Your task to perform on an android device: Open wifi settings Image 0: 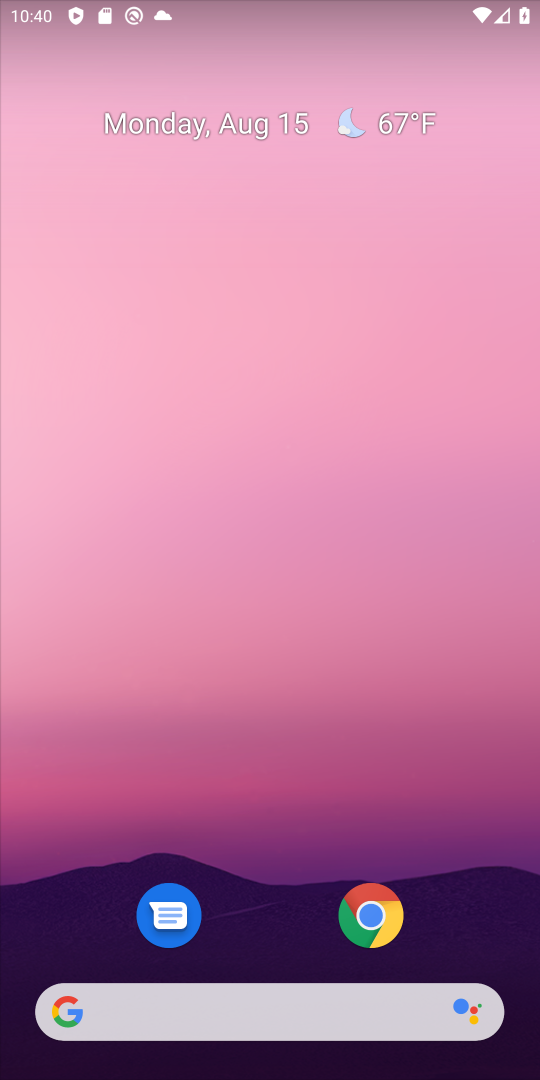
Step 0: click (310, 8)
Your task to perform on an android device: Open wifi settings Image 1: 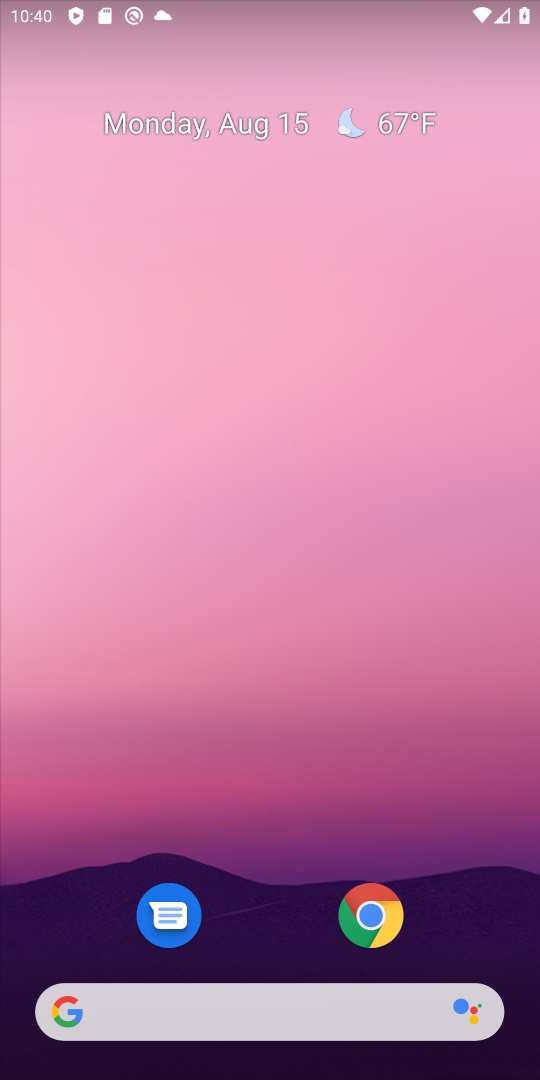
Step 1: drag from (310, 8) to (253, 688)
Your task to perform on an android device: Open wifi settings Image 2: 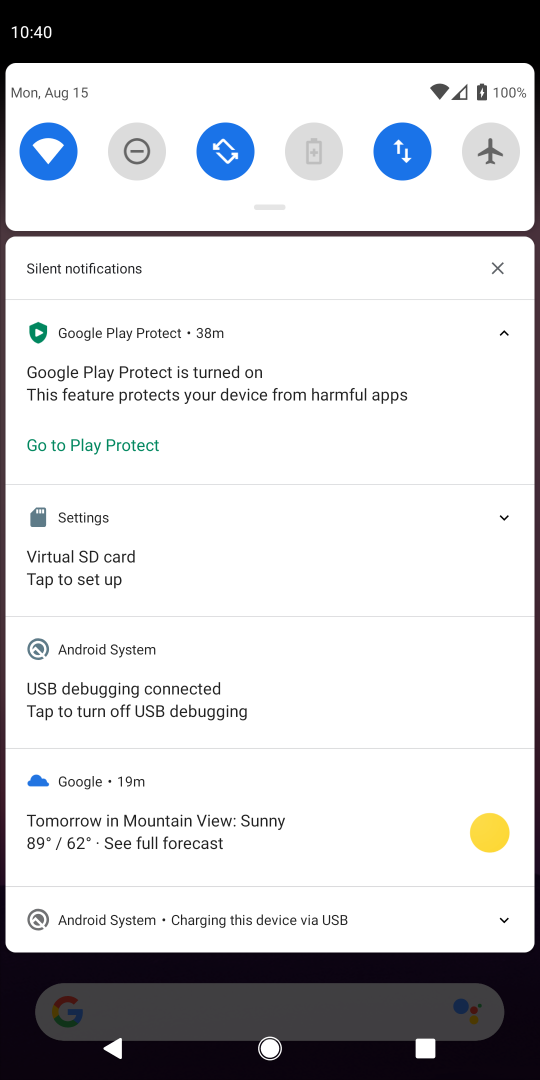
Step 2: drag from (267, 12) to (282, 297)
Your task to perform on an android device: Open wifi settings Image 3: 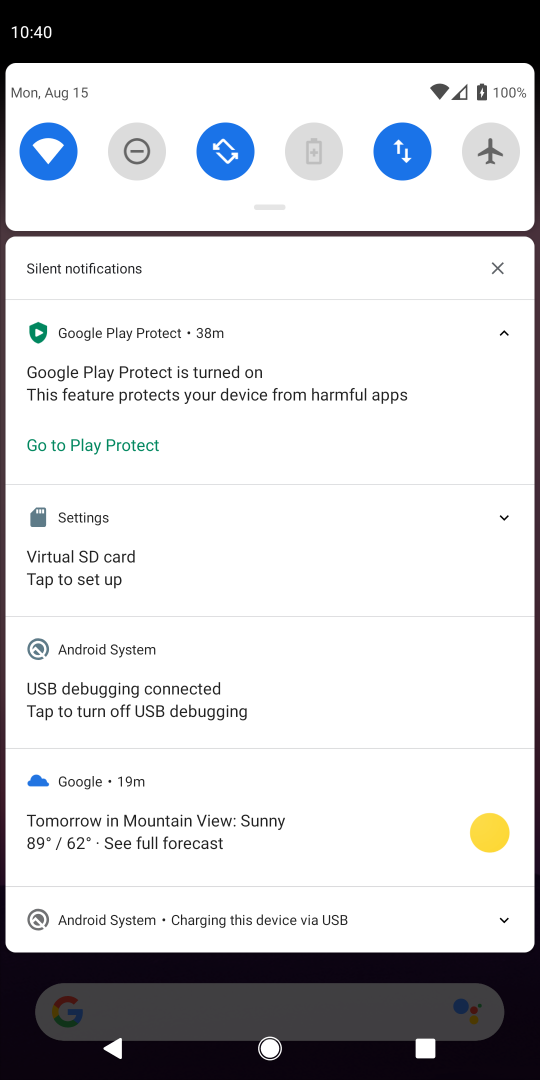
Step 3: drag from (180, 176) to (409, 978)
Your task to perform on an android device: Open wifi settings Image 4: 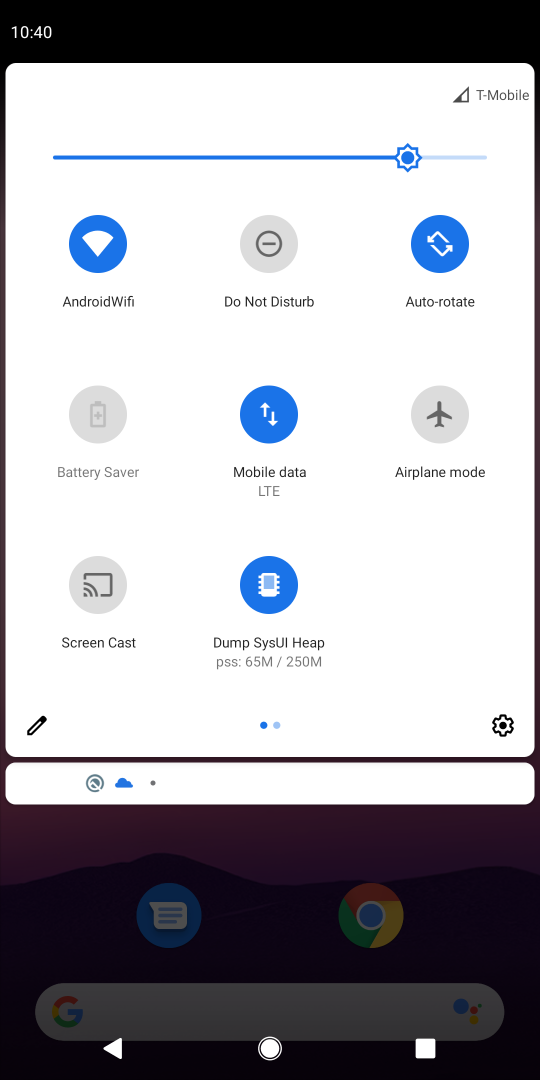
Step 4: click (79, 246)
Your task to perform on an android device: Open wifi settings Image 5: 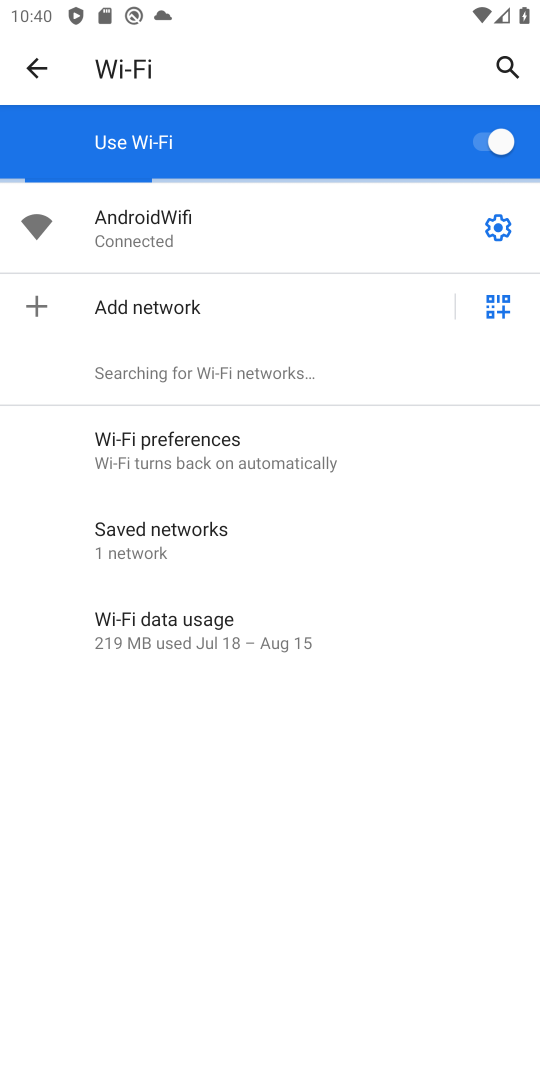
Step 5: task complete